Your task to perform on an android device: Open the calendar app, open the side menu, and click the "Day" option Image 0: 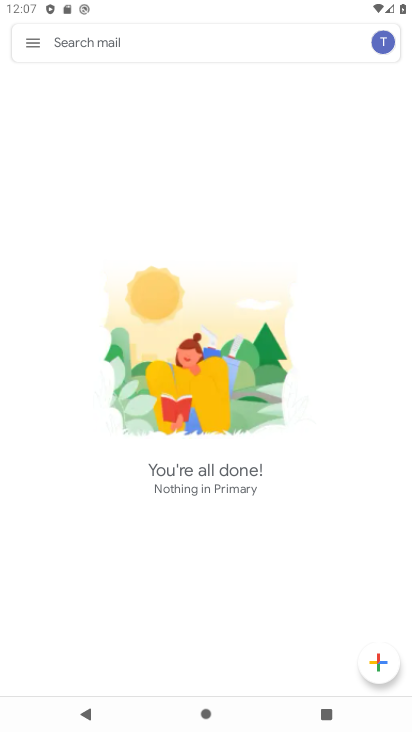
Step 0: press home button
Your task to perform on an android device: Open the calendar app, open the side menu, and click the "Day" option Image 1: 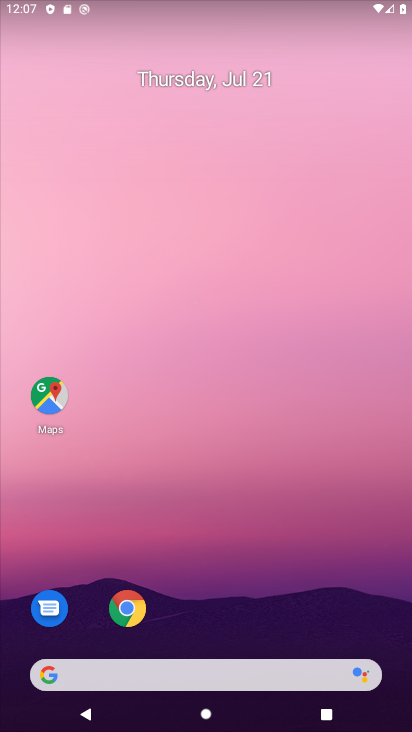
Step 1: drag from (195, 633) to (201, 151)
Your task to perform on an android device: Open the calendar app, open the side menu, and click the "Day" option Image 2: 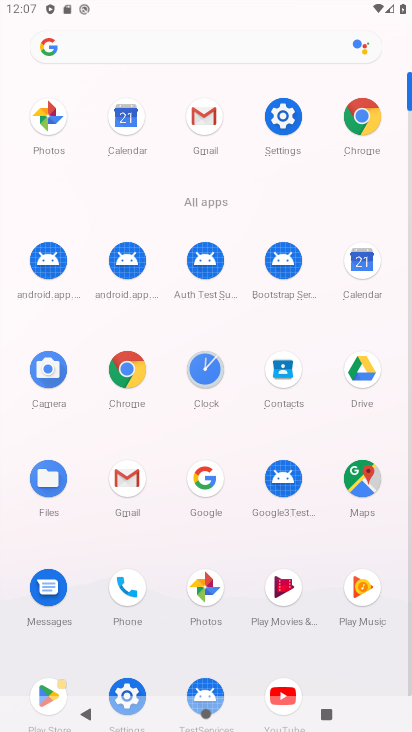
Step 2: click (363, 263)
Your task to perform on an android device: Open the calendar app, open the side menu, and click the "Day" option Image 3: 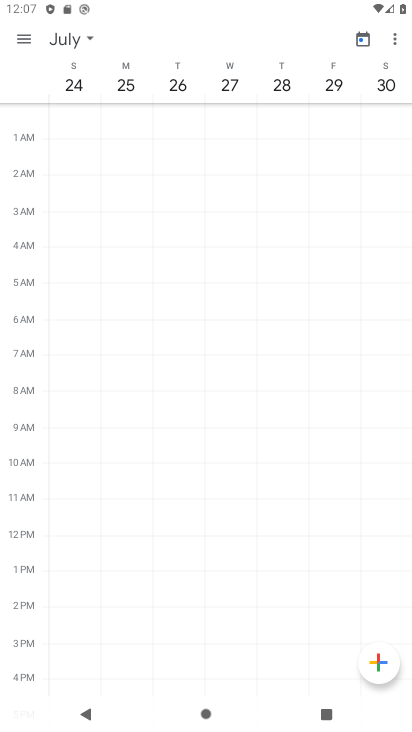
Step 3: click (18, 31)
Your task to perform on an android device: Open the calendar app, open the side menu, and click the "Day" option Image 4: 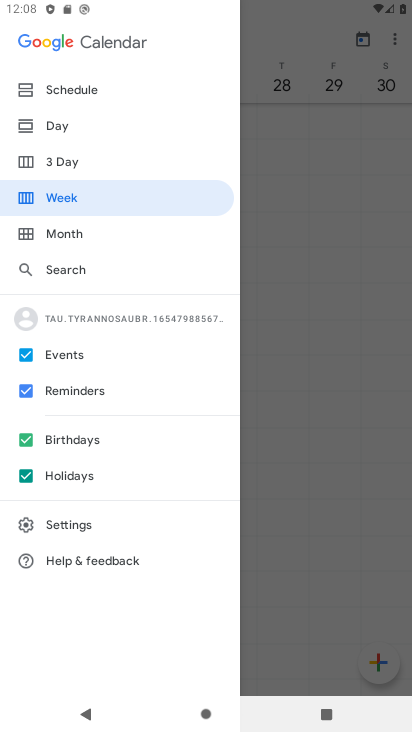
Step 4: click (52, 124)
Your task to perform on an android device: Open the calendar app, open the side menu, and click the "Day" option Image 5: 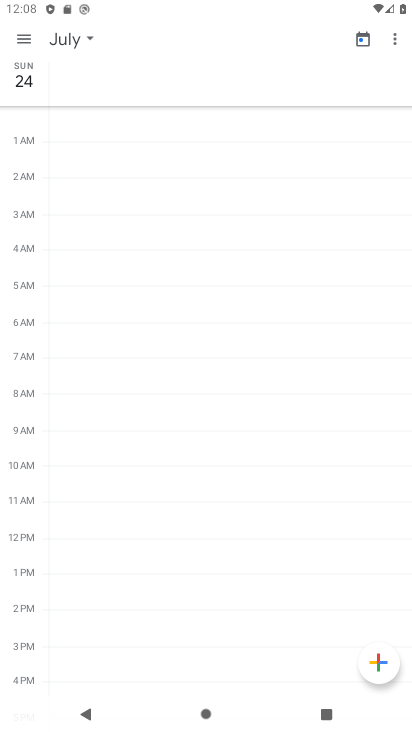
Step 5: task complete